Your task to perform on an android device: check data usage Image 0: 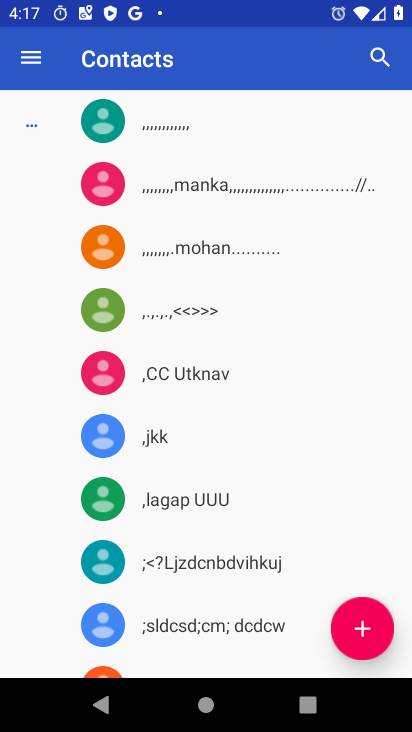
Step 0: press home button
Your task to perform on an android device: check data usage Image 1: 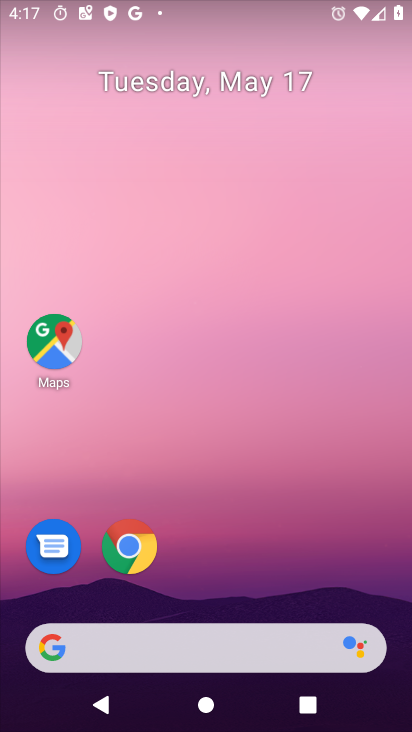
Step 1: drag from (402, 649) to (355, 363)
Your task to perform on an android device: check data usage Image 2: 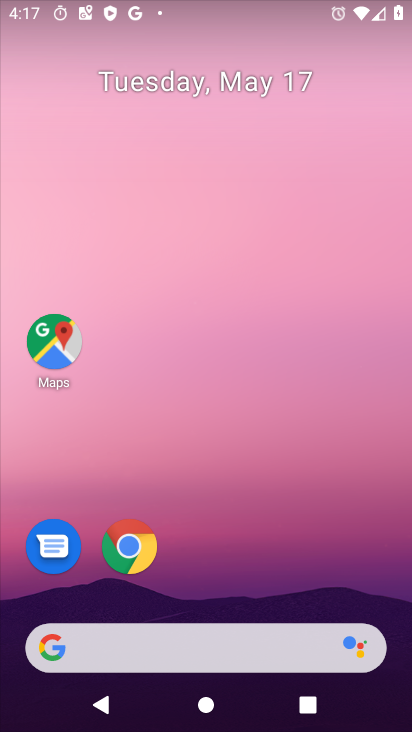
Step 2: drag from (403, 686) to (392, 400)
Your task to perform on an android device: check data usage Image 3: 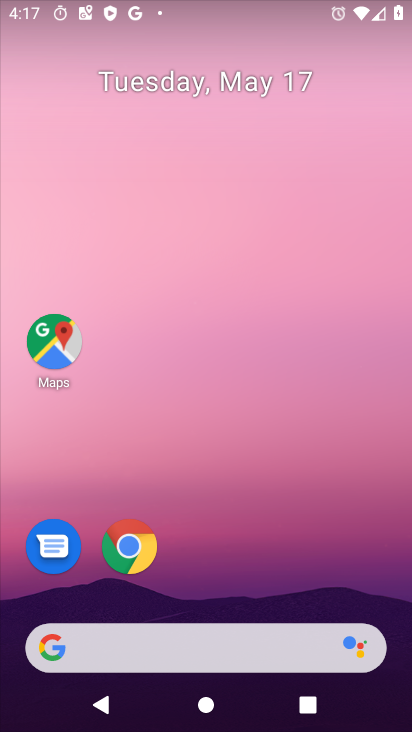
Step 3: drag from (396, 695) to (368, 325)
Your task to perform on an android device: check data usage Image 4: 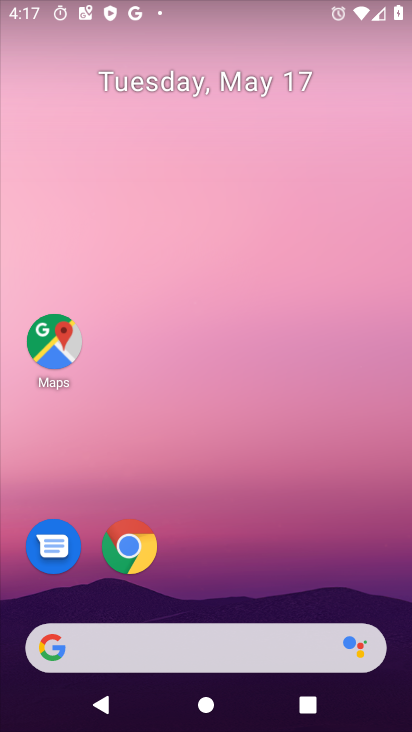
Step 4: drag from (402, 664) to (348, 262)
Your task to perform on an android device: check data usage Image 5: 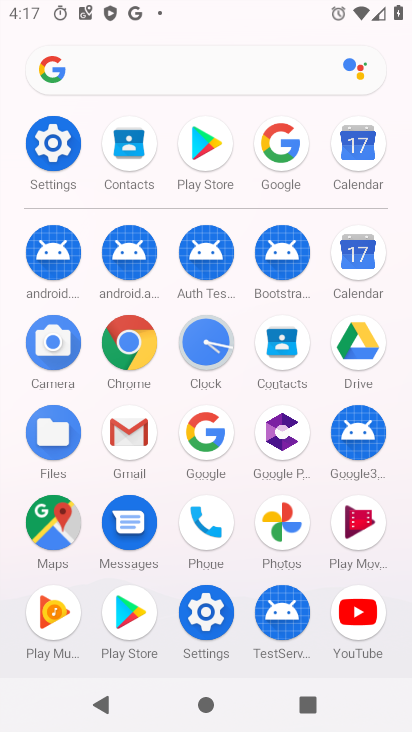
Step 5: click (58, 144)
Your task to perform on an android device: check data usage Image 6: 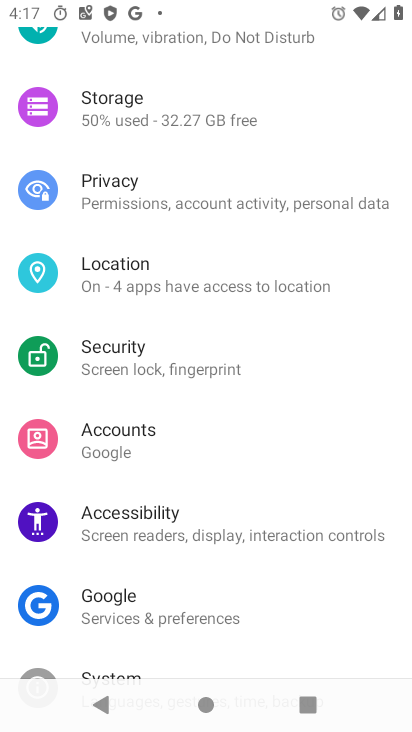
Step 6: drag from (343, 121) to (333, 387)
Your task to perform on an android device: check data usage Image 7: 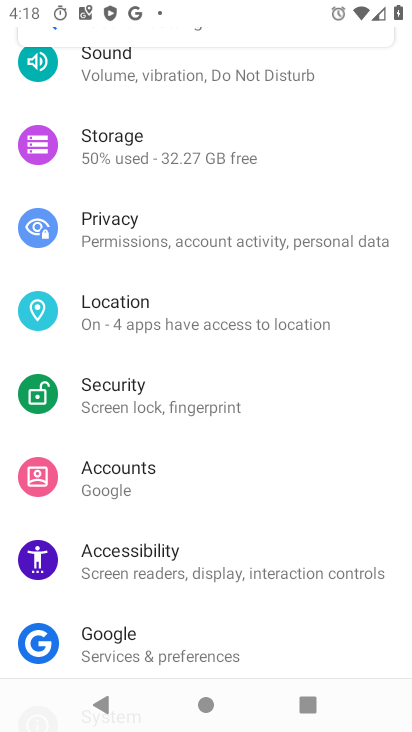
Step 7: drag from (308, 133) to (297, 474)
Your task to perform on an android device: check data usage Image 8: 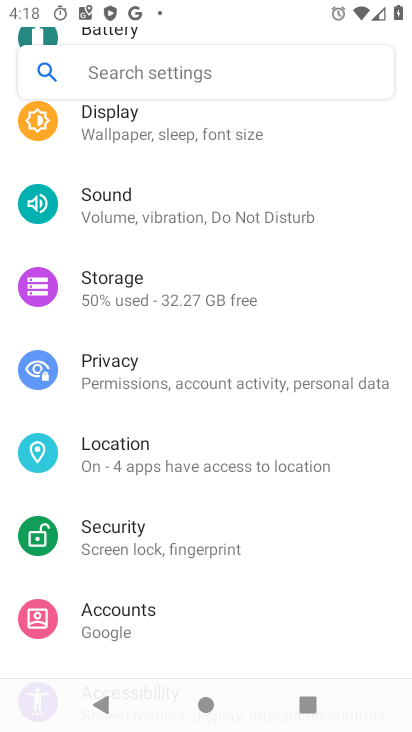
Step 8: drag from (336, 146) to (346, 461)
Your task to perform on an android device: check data usage Image 9: 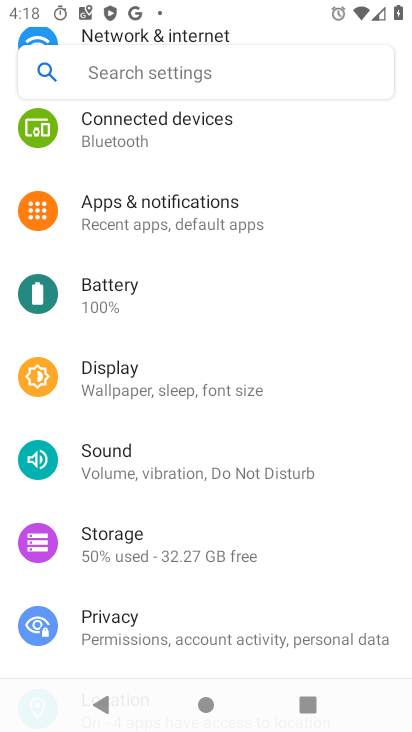
Step 9: drag from (321, 244) to (317, 560)
Your task to perform on an android device: check data usage Image 10: 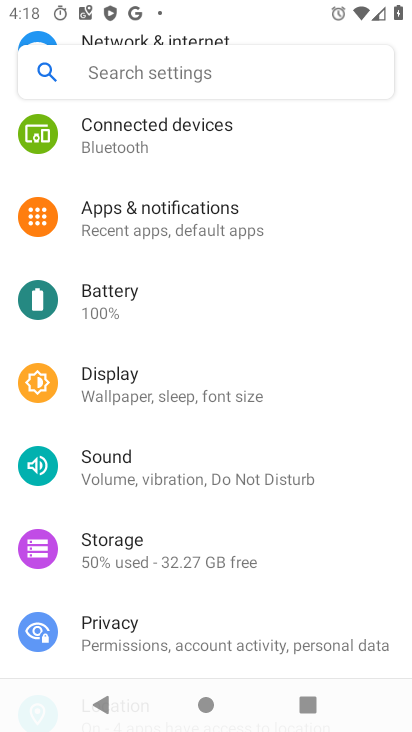
Step 10: drag from (317, 172) to (347, 582)
Your task to perform on an android device: check data usage Image 11: 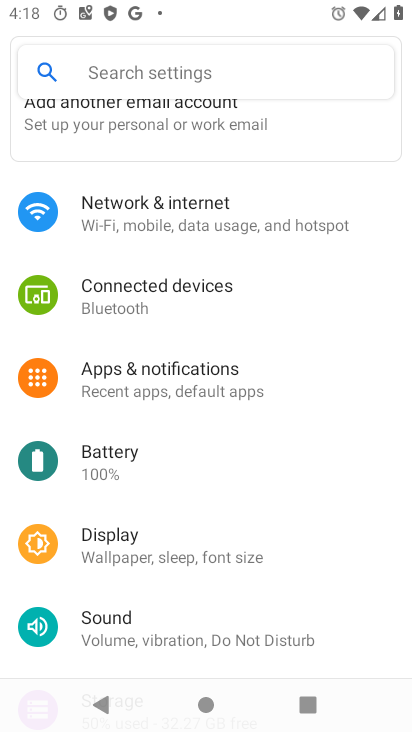
Step 11: click (164, 202)
Your task to perform on an android device: check data usage Image 12: 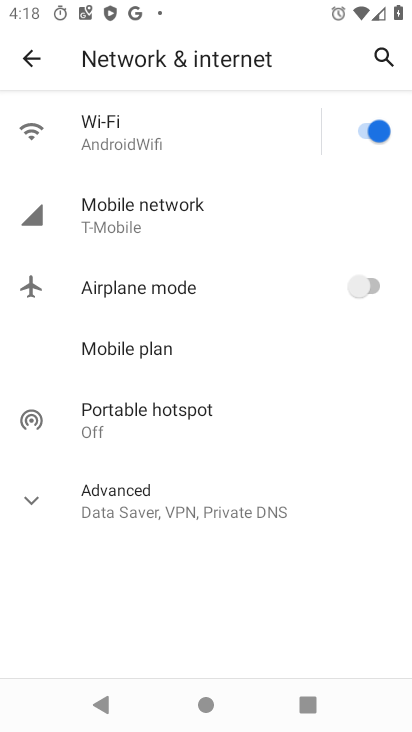
Step 12: task complete